Your task to perform on an android device: When is my next meeting? Image 0: 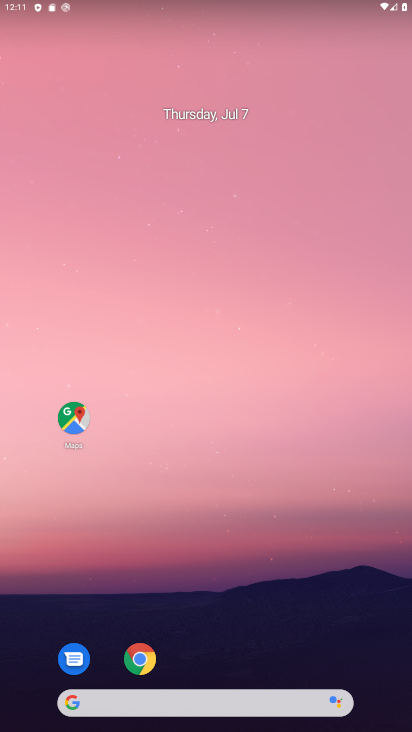
Step 0: drag from (208, 309) to (173, 120)
Your task to perform on an android device: When is my next meeting? Image 1: 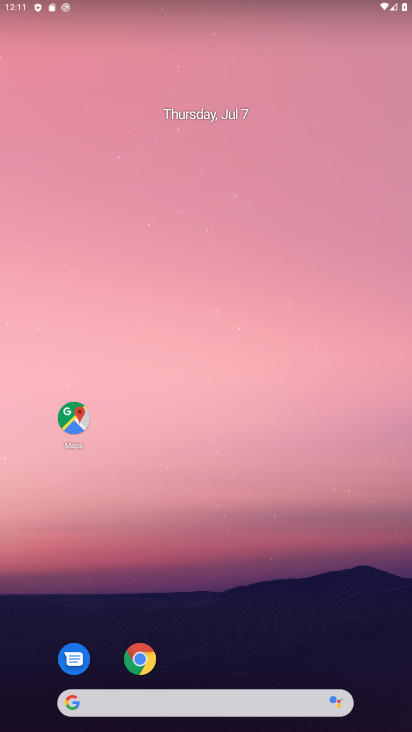
Step 1: drag from (264, 551) to (187, 122)
Your task to perform on an android device: When is my next meeting? Image 2: 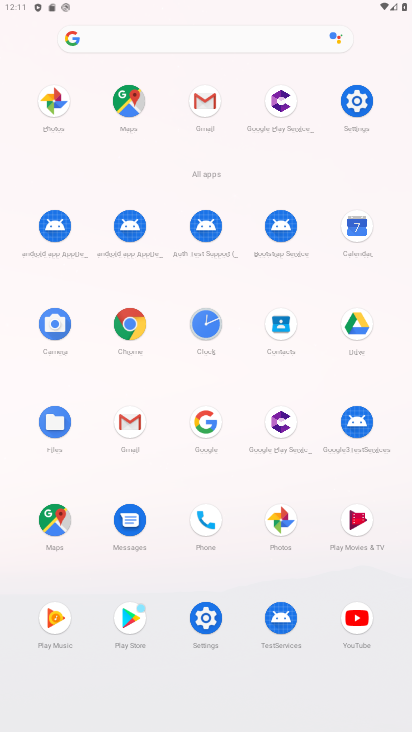
Step 2: click (359, 222)
Your task to perform on an android device: When is my next meeting? Image 3: 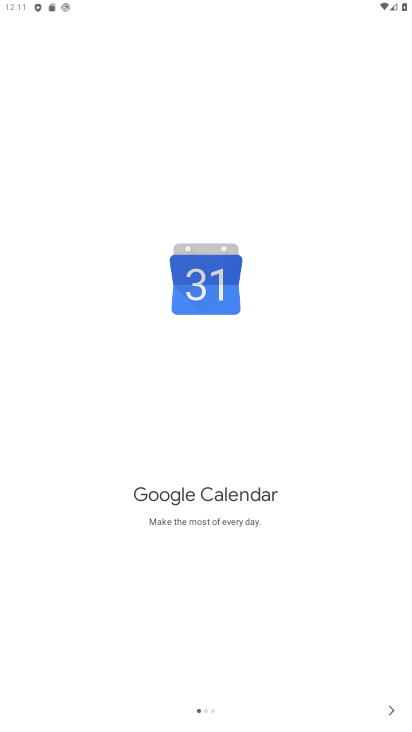
Step 3: click (389, 712)
Your task to perform on an android device: When is my next meeting? Image 4: 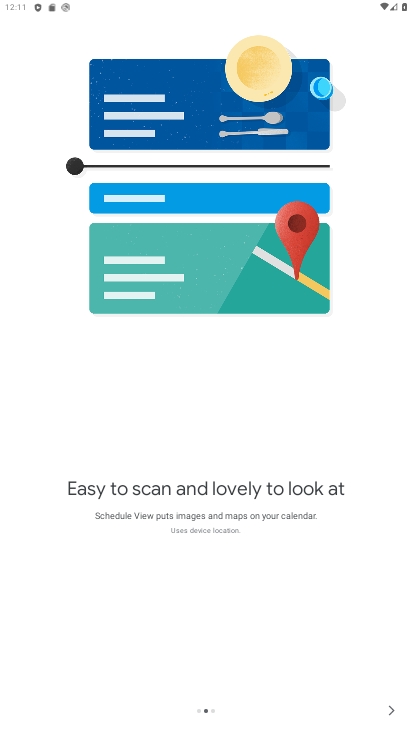
Step 4: click (389, 712)
Your task to perform on an android device: When is my next meeting? Image 5: 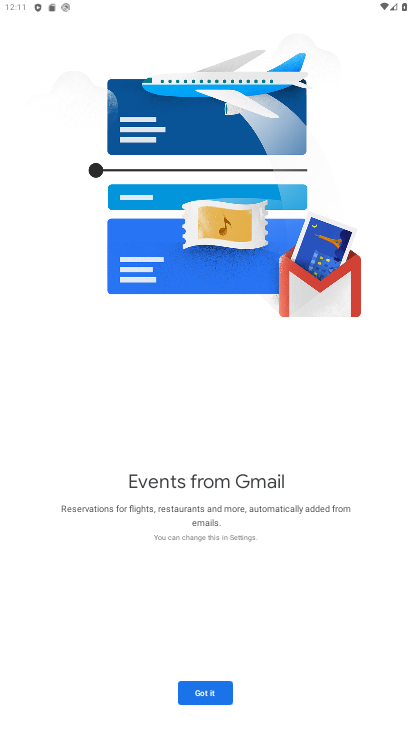
Step 5: click (196, 686)
Your task to perform on an android device: When is my next meeting? Image 6: 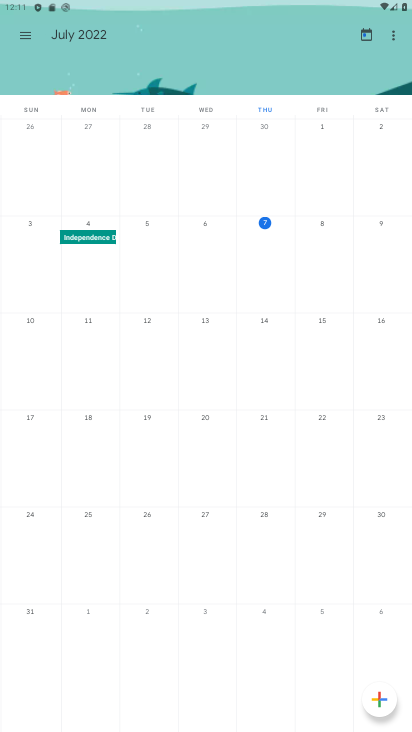
Step 6: click (260, 220)
Your task to perform on an android device: When is my next meeting? Image 7: 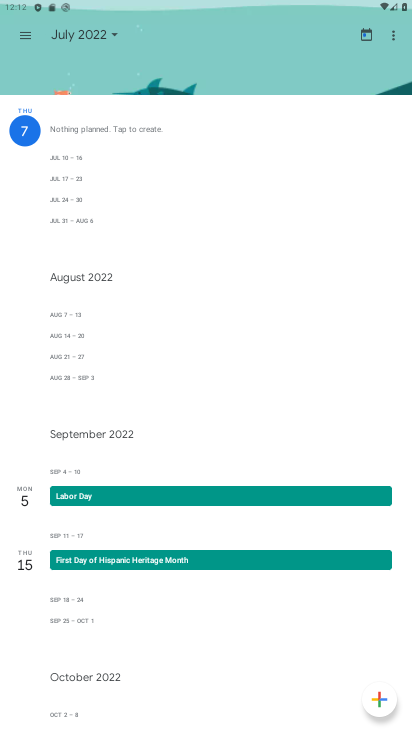
Step 7: task complete